Your task to perform on an android device: Open the calendar app, open the side menu, and click the "Day" option Image 0: 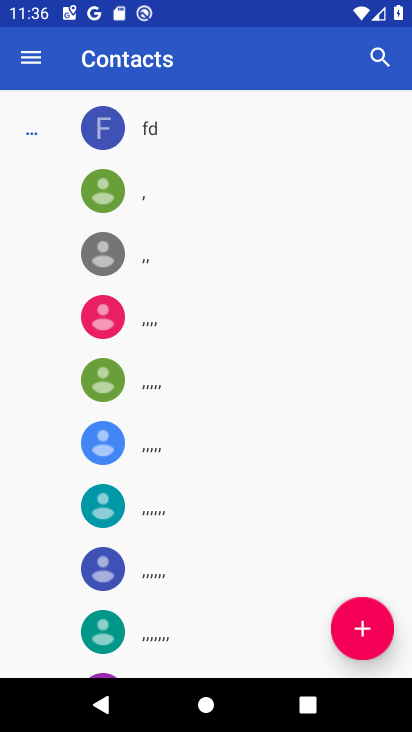
Step 0: press home button
Your task to perform on an android device: Open the calendar app, open the side menu, and click the "Day" option Image 1: 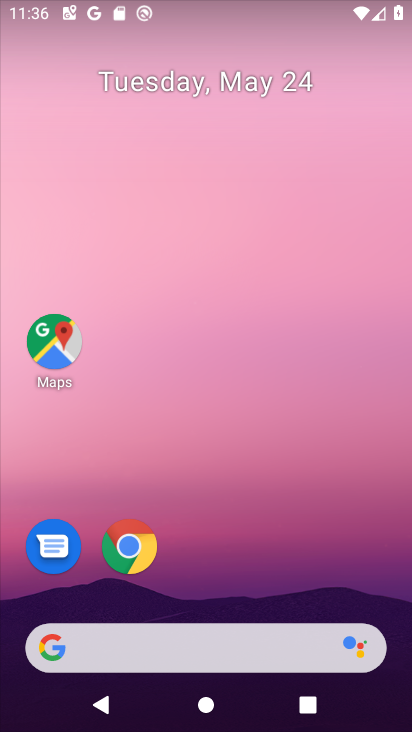
Step 1: drag from (262, 562) to (340, 37)
Your task to perform on an android device: Open the calendar app, open the side menu, and click the "Day" option Image 2: 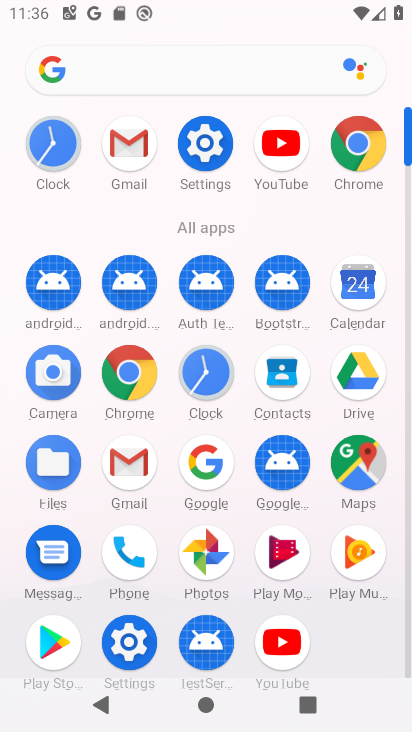
Step 2: click (358, 292)
Your task to perform on an android device: Open the calendar app, open the side menu, and click the "Day" option Image 3: 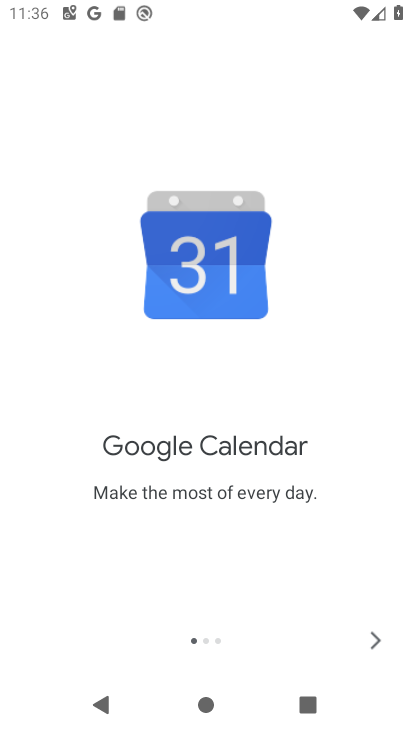
Step 3: click (370, 644)
Your task to perform on an android device: Open the calendar app, open the side menu, and click the "Day" option Image 4: 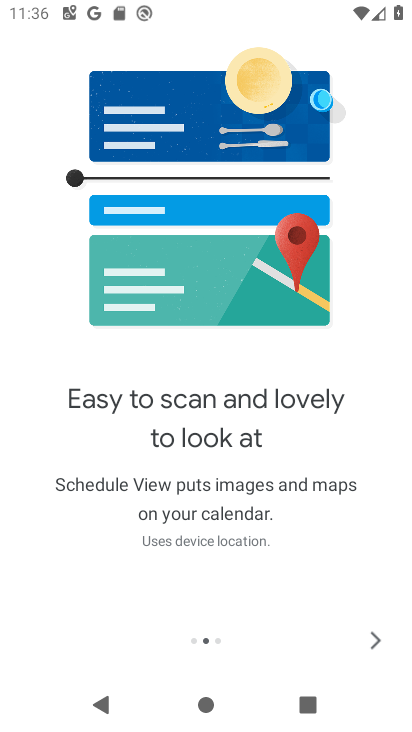
Step 4: click (375, 643)
Your task to perform on an android device: Open the calendar app, open the side menu, and click the "Day" option Image 5: 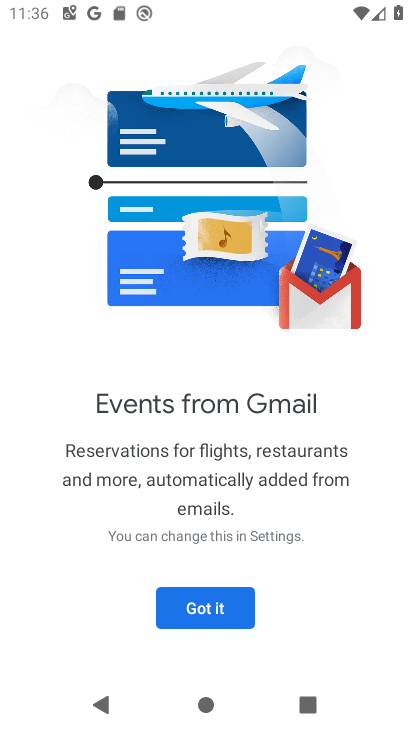
Step 5: click (186, 603)
Your task to perform on an android device: Open the calendar app, open the side menu, and click the "Day" option Image 6: 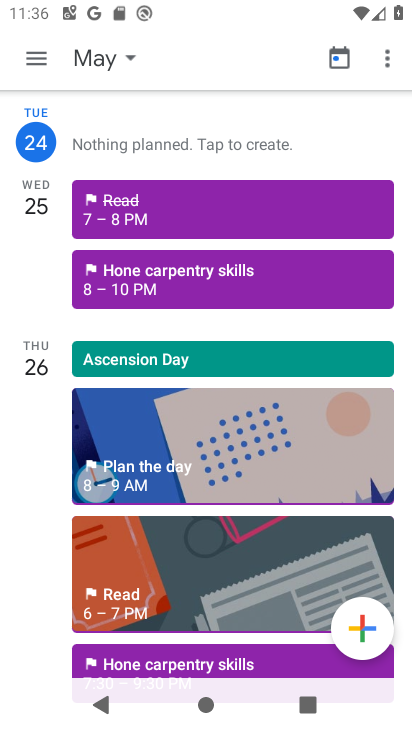
Step 6: drag from (220, 535) to (256, 397)
Your task to perform on an android device: Open the calendar app, open the side menu, and click the "Day" option Image 7: 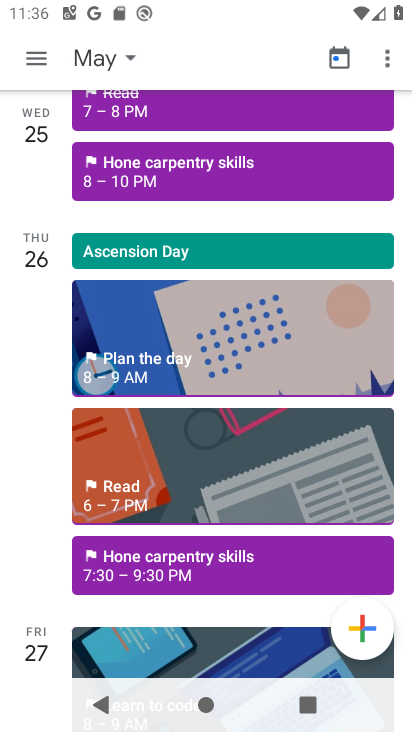
Step 7: click (27, 54)
Your task to perform on an android device: Open the calendar app, open the side menu, and click the "Day" option Image 8: 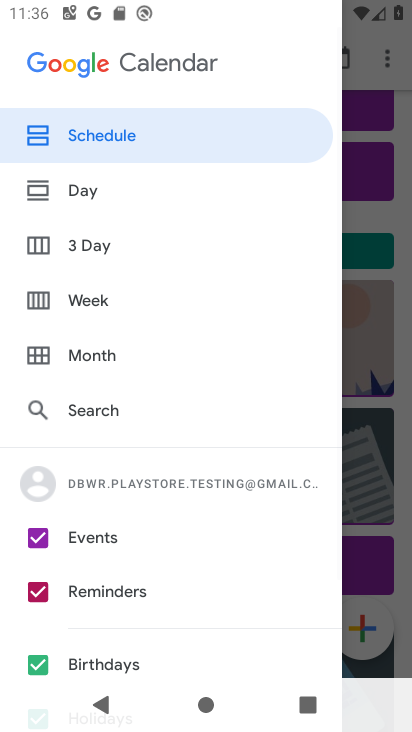
Step 8: click (87, 203)
Your task to perform on an android device: Open the calendar app, open the side menu, and click the "Day" option Image 9: 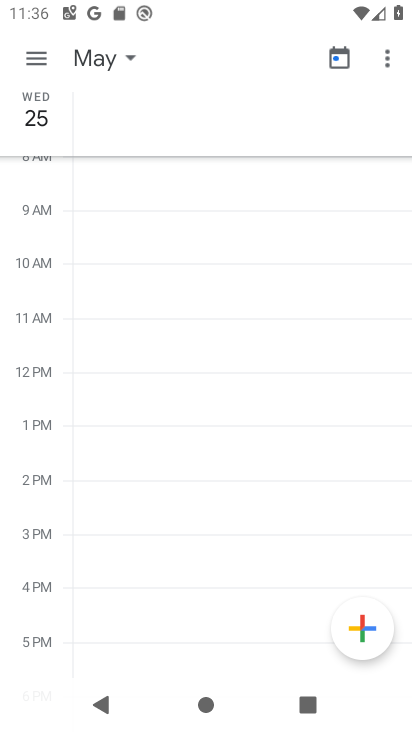
Step 9: task complete